Your task to perform on an android device: Open eBay Image 0: 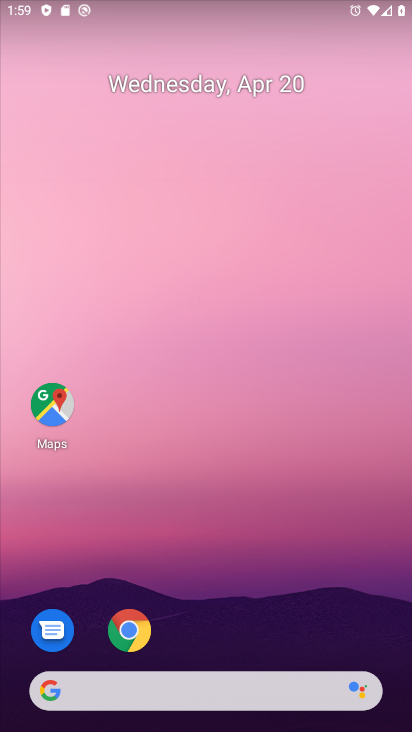
Step 0: click (127, 637)
Your task to perform on an android device: Open eBay Image 1: 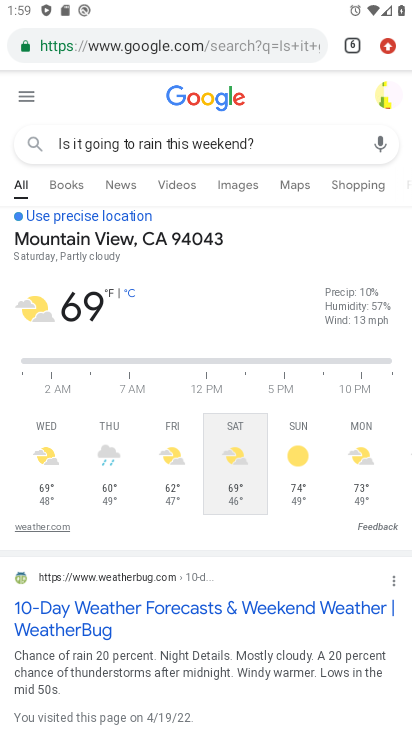
Step 1: click (354, 44)
Your task to perform on an android device: Open eBay Image 2: 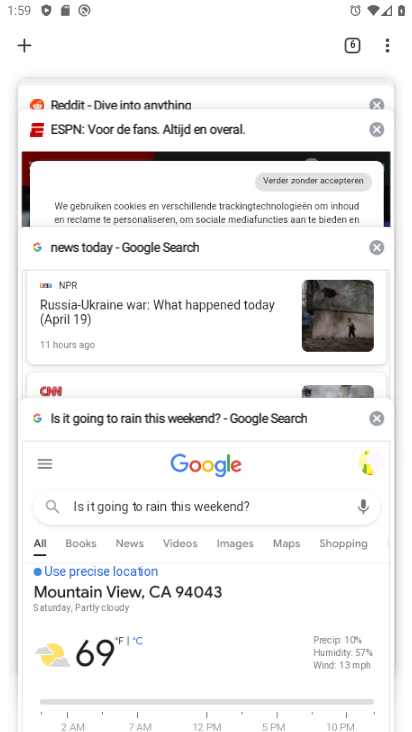
Step 2: drag from (132, 158) to (92, 500)
Your task to perform on an android device: Open eBay Image 3: 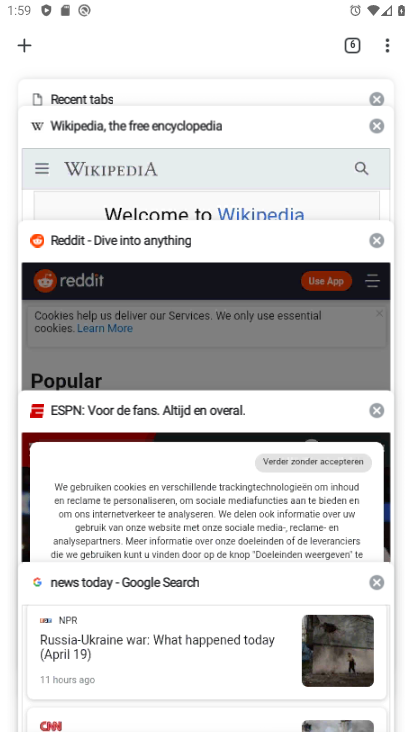
Step 3: drag from (109, 150) to (86, 334)
Your task to perform on an android device: Open eBay Image 4: 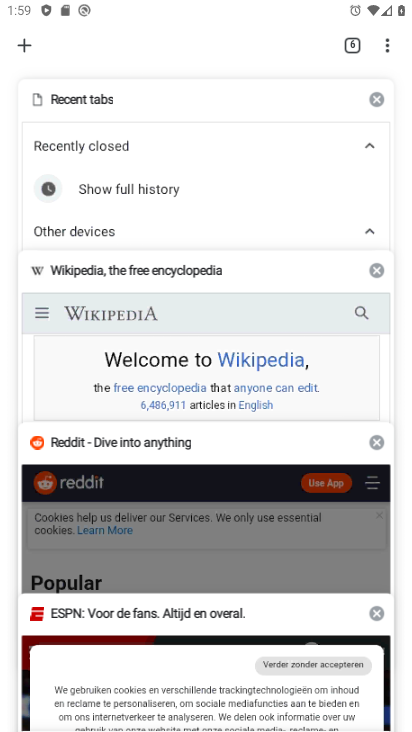
Step 4: click (26, 36)
Your task to perform on an android device: Open eBay Image 5: 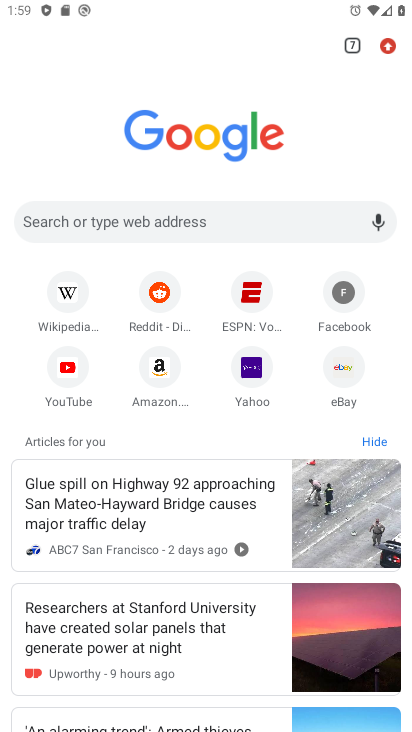
Step 5: click (335, 369)
Your task to perform on an android device: Open eBay Image 6: 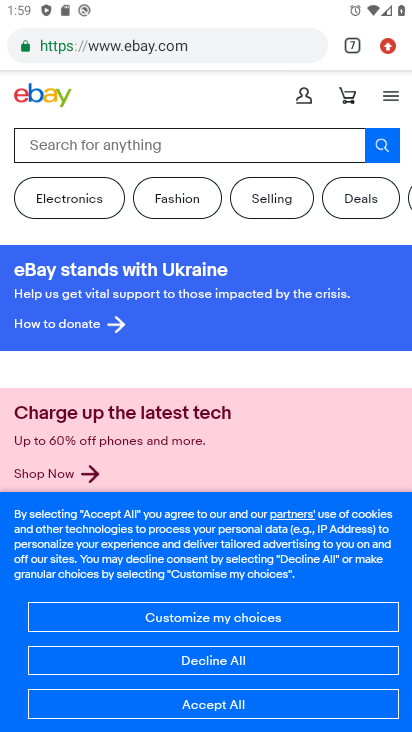
Step 6: task complete